Your task to perform on an android device: Search for seafood restaurants on Google Maps Image 0: 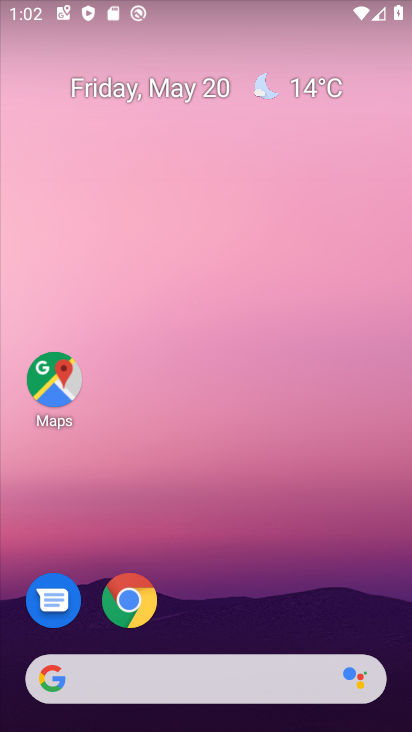
Step 0: click (53, 378)
Your task to perform on an android device: Search for seafood restaurants on Google Maps Image 1: 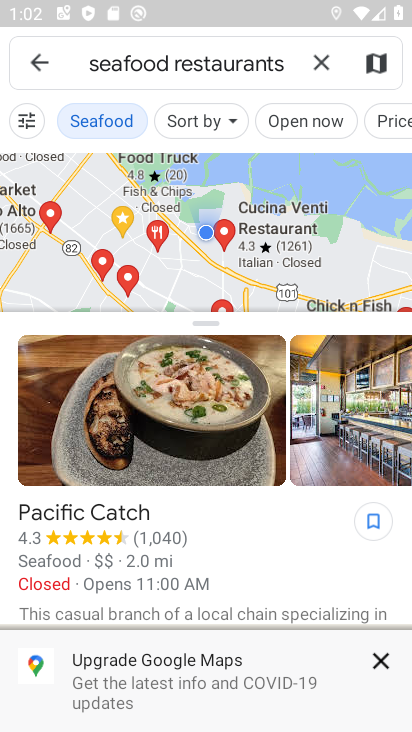
Step 1: task complete